Your task to perform on an android device: Open settings on Google Maps Image 0: 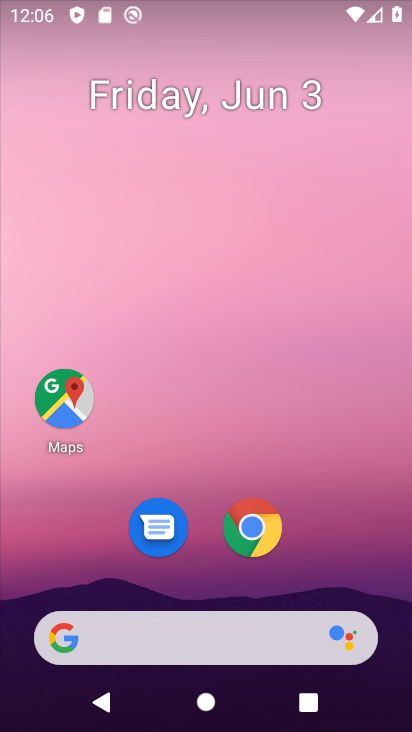
Step 0: click (63, 393)
Your task to perform on an android device: Open settings on Google Maps Image 1: 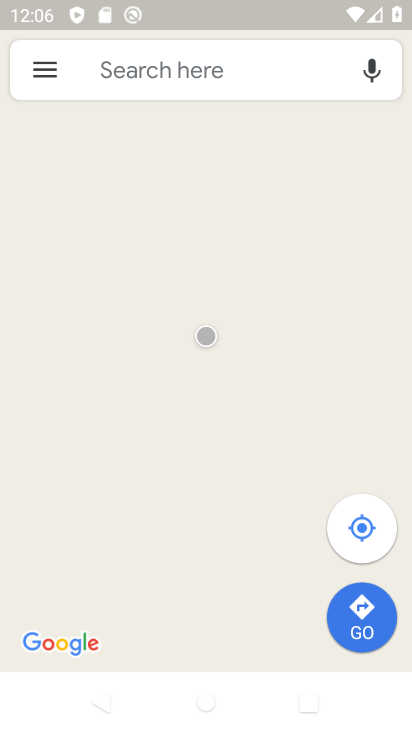
Step 1: click (46, 61)
Your task to perform on an android device: Open settings on Google Maps Image 2: 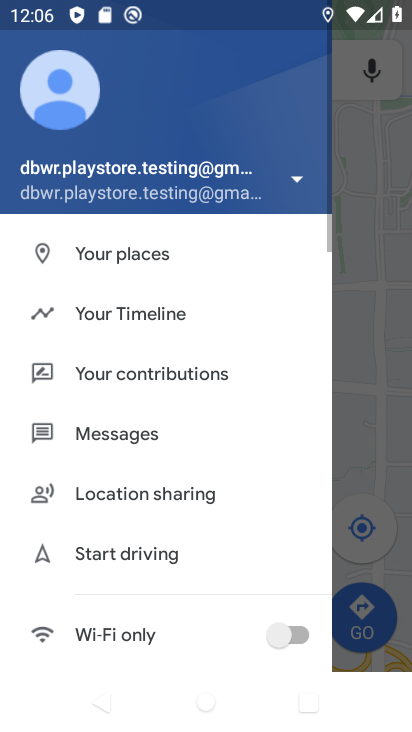
Step 2: drag from (135, 588) to (232, 281)
Your task to perform on an android device: Open settings on Google Maps Image 3: 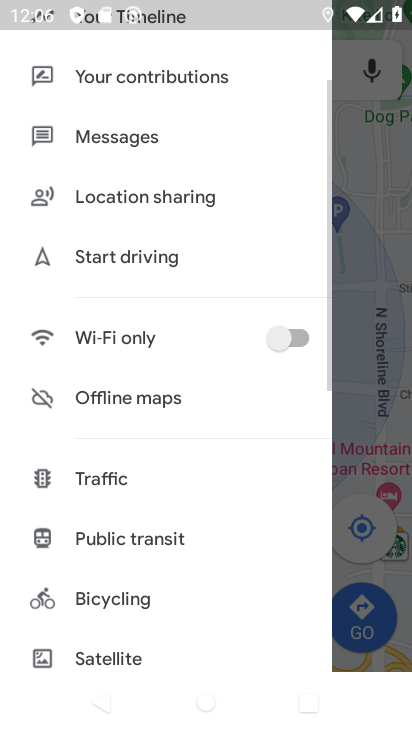
Step 3: drag from (139, 634) to (216, 314)
Your task to perform on an android device: Open settings on Google Maps Image 4: 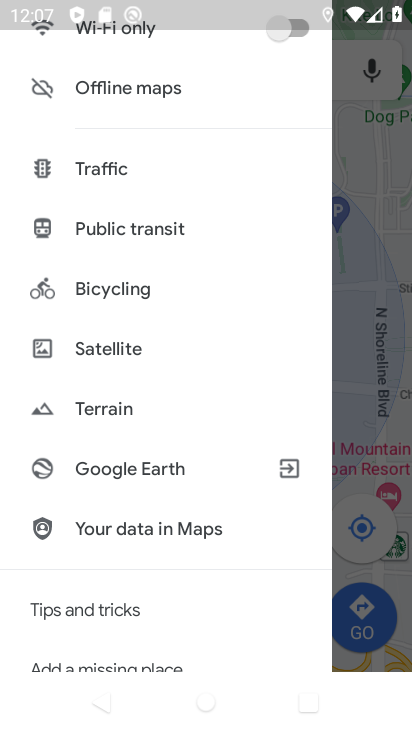
Step 4: drag from (157, 583) to (217, 306)
Your task to perform on an android device: Open settings on Google Maps Image 5: 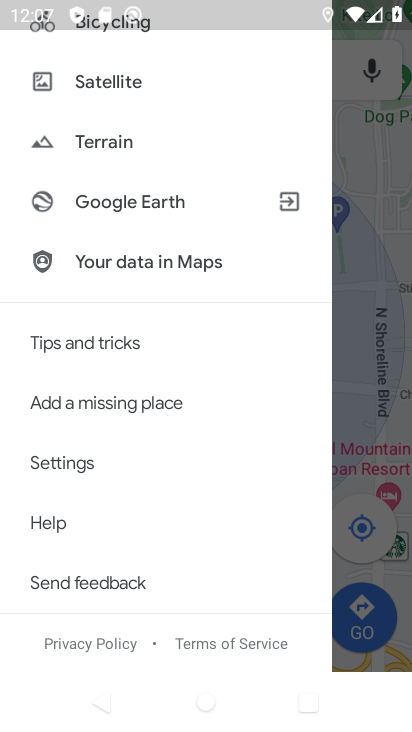
Step 5: click (117, 467)
Your task to perform on an android device: Open settings on Google Maps Image 6: 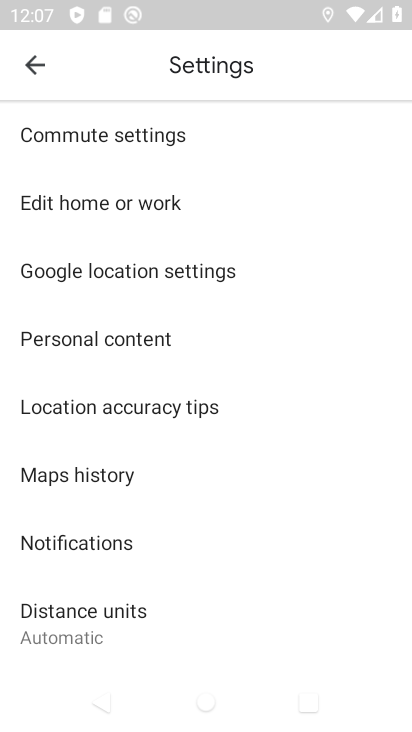
Step 6: task complete